Your task to perform on an android device: turn on bluetooth scan Image 0: 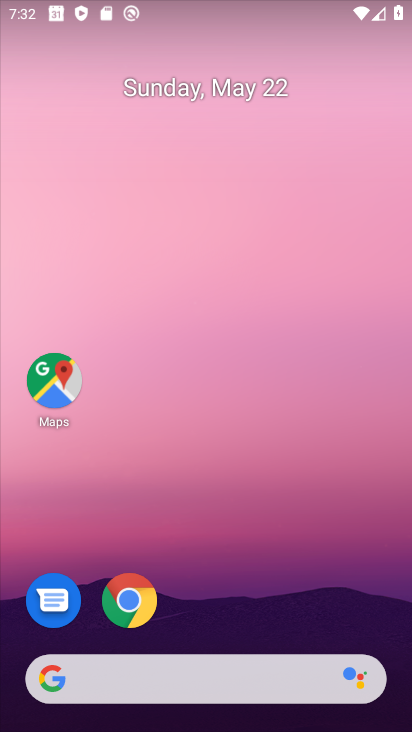
Step 0: drag from (239, 621) to (256, 37)
Your task to perform on an android device: turn on bluetooth scan Image 1: 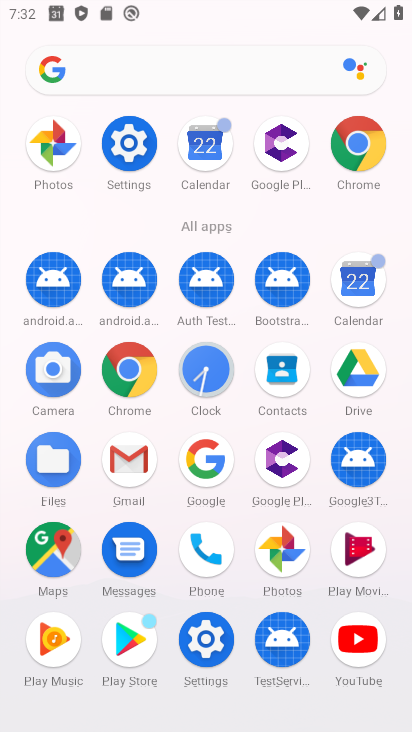
Step 1: drag from (14, 612) to (9, 274)
Your task to perform on an android device: turn on bluetooth scan Image 2: 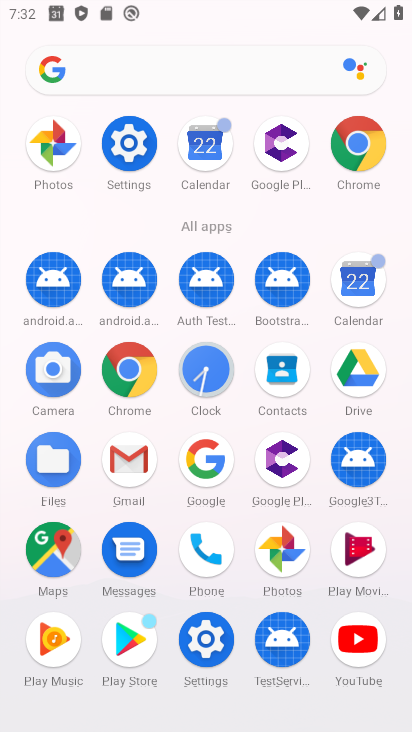
Step 2: click (128, 140)
Your task to perform on an android device: turn on bluetooth scan Image 3: 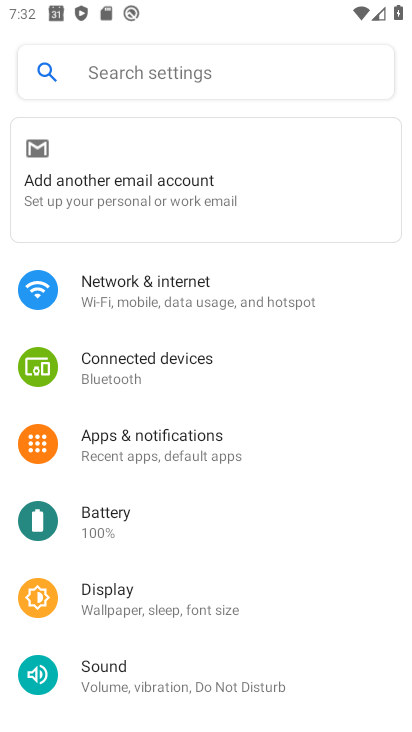
Step 3: click (171, 284)
Your task to perform on an android device: turn on bluetooth scan Image 4: 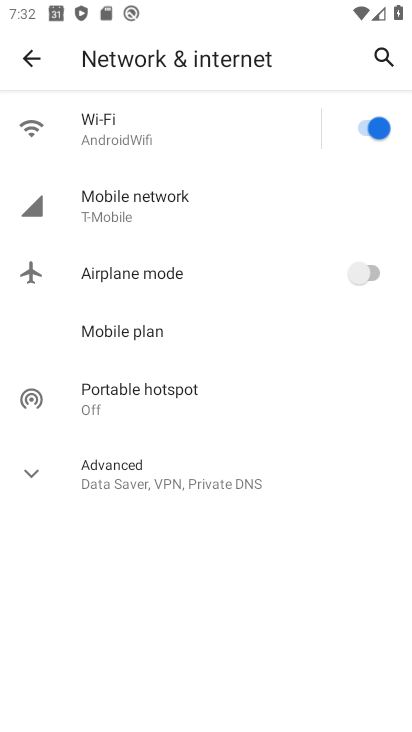
Step 4: click (22, 470)
Your task to perform on an android device: turn on bluetooth scan Image 5: 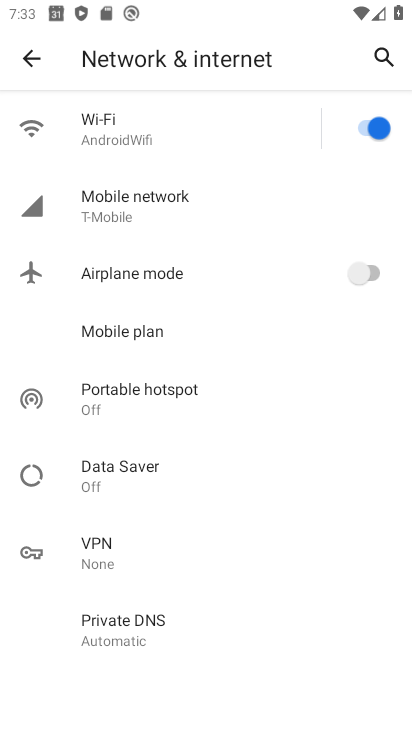
Step 5: click (40, 60)
Your task to perform on an android device: turn on bluetooth scan Image 6: 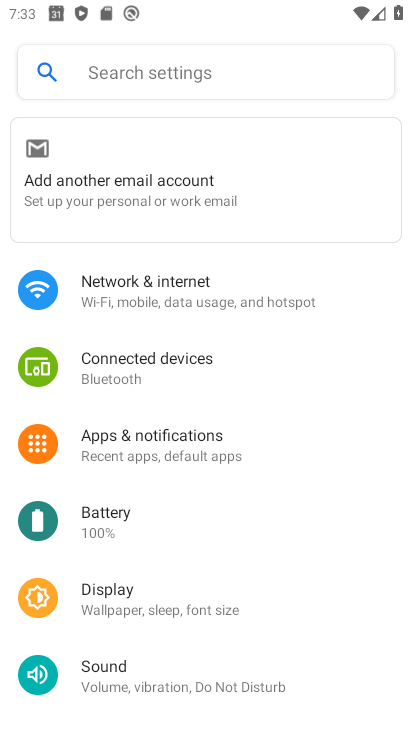
Step 6: drag from (186, 605) to (212, 357)
Your task to perform on an android device: turn on bluetooth scan Image 7: 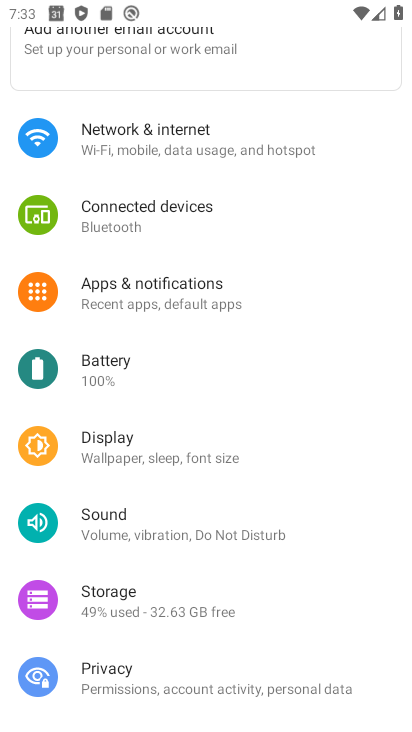
Step 7: click (220, 222)
Your task to perform on an android device: turn on bluetooth scan Image 8: 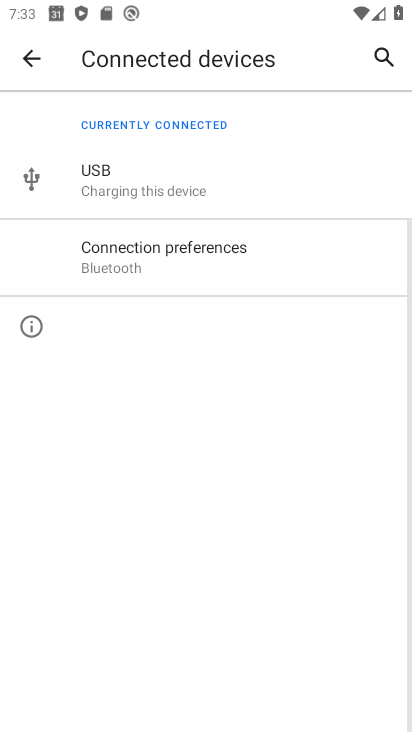
Step 8: click (36, 51)
Your task to perform on an android device: turn on bluetooth scan Image 9: 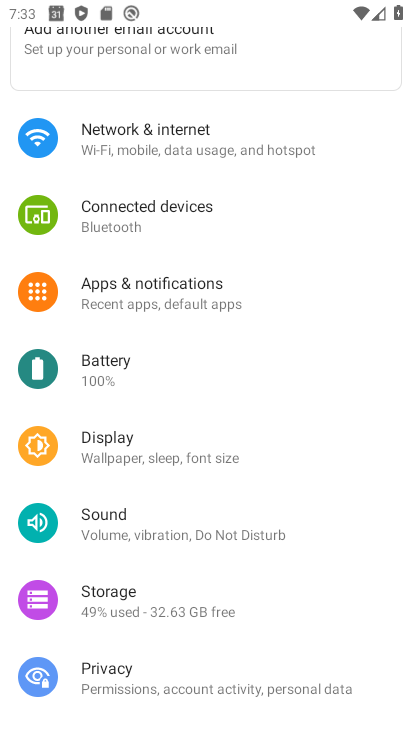
Step 9: drag from (186, 595) to (202, 171)
Your task to perform on an android device: turn on bluetooth scan Image 10: 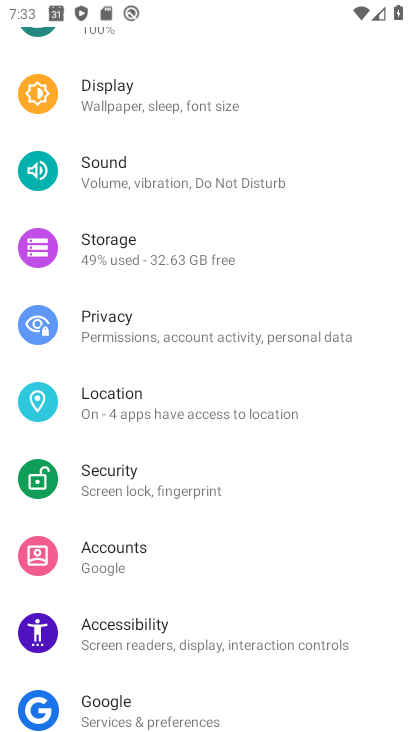
Step 10: drag from (206, 603) to (224, 141)
Your task to perform on an android device: turn on bluetooth scan Image 11: 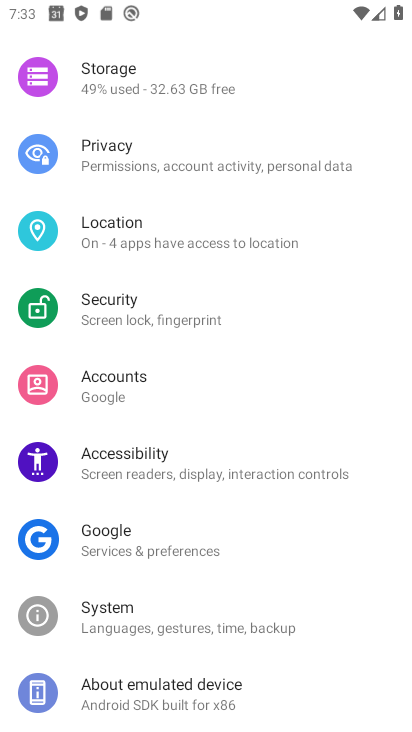
Step 11: click (169, 233)
Your task to perform on an android device: turn on bluetooth scan Image 12: 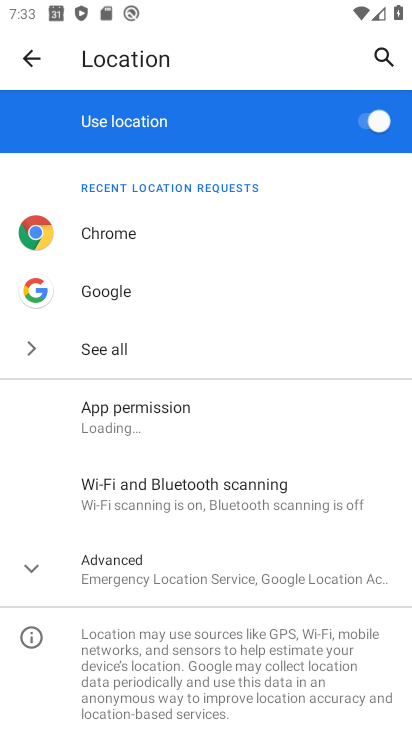
Step 12: click (130, 504)
Your task to perform on an android device: turn on bluetooth scan Image 13: 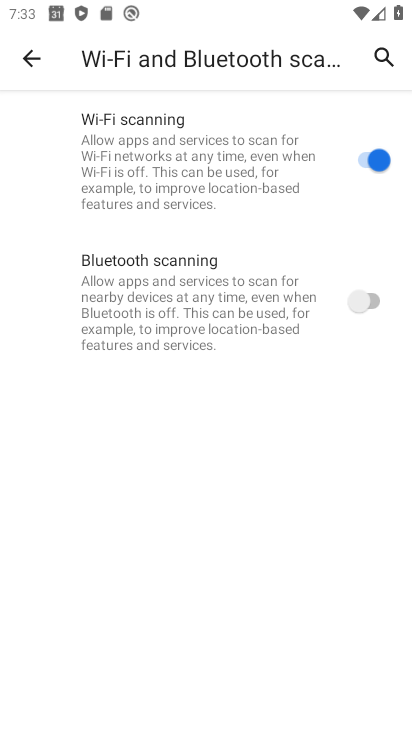
Step 13: click (364, 290)
Your task to perform on an android device: turn on bluetooth scan Image 14: 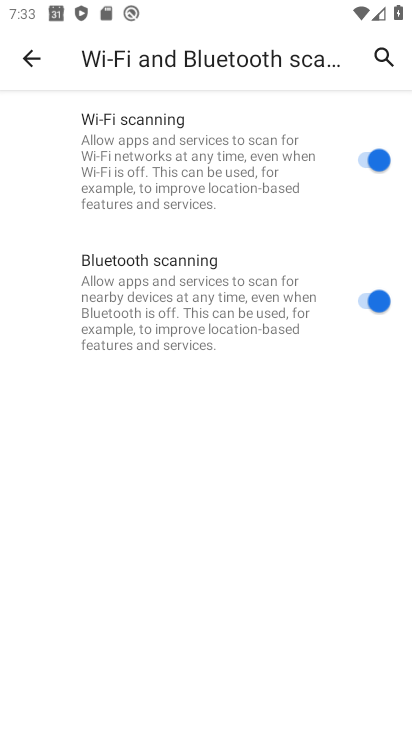
Step 14: task complete